Your task to perform on an android device: toggle translation in the chrome app Image 0: 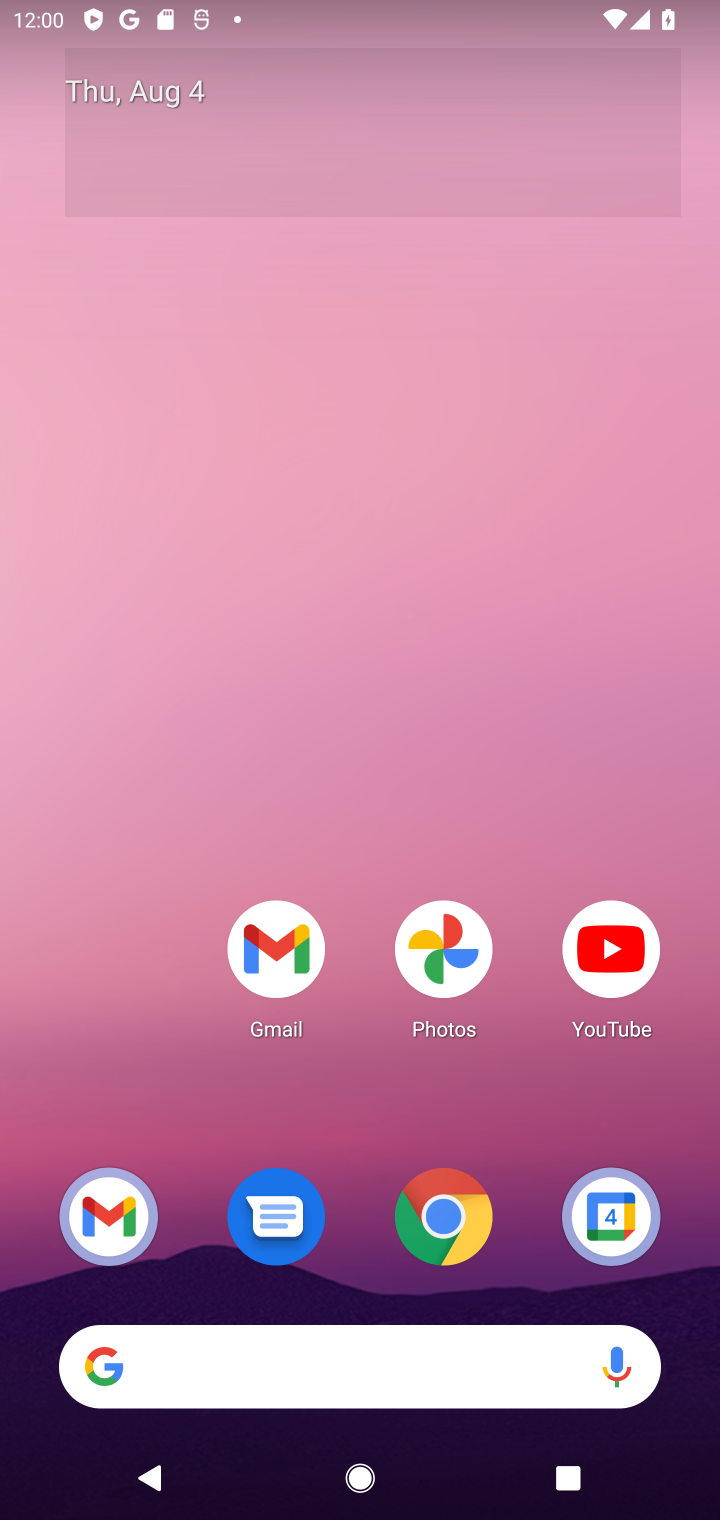
Step 0: click (447, 1208)
Your task to perform on an android device: toggle translation in the chrome app Image 1: 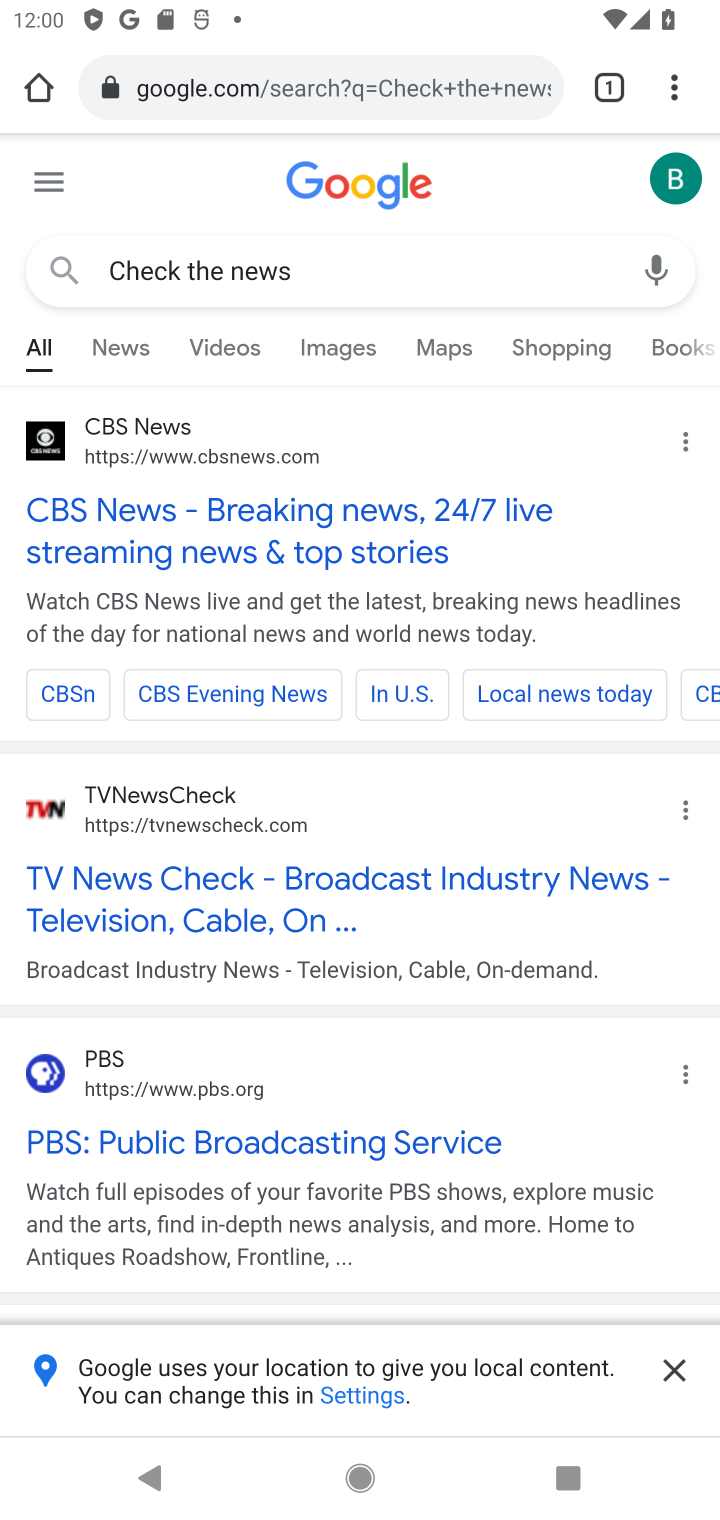
Step 1: task complete